Your task to perform on an android device: allow cookies in the chrome app Image 0: 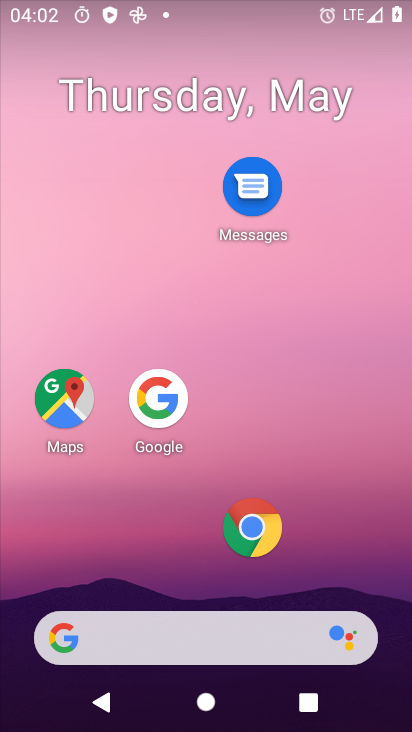
Step 0: drag from (194, 566) to (230, 119)
Your task to perform on an android device: allow cookies in the chrome app Image 1: 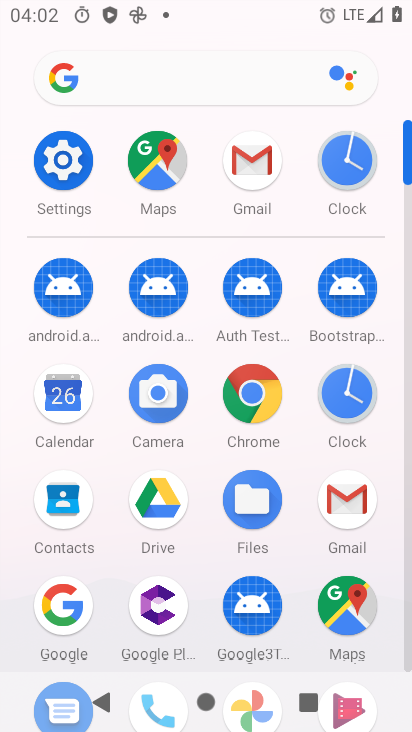
Step 1: click (251, 395)
Your task to perform on an android device: allow cookies in the chrome app Image 2: 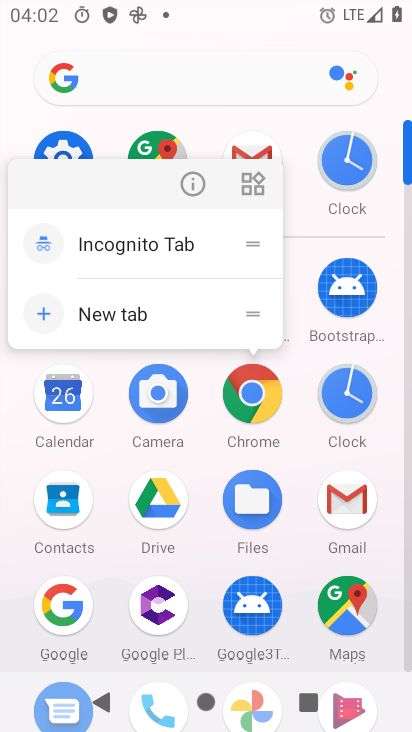
Step 2: click (183, 190)
Your task to perform on an android device: allow cookies in the chrome app Image 3: 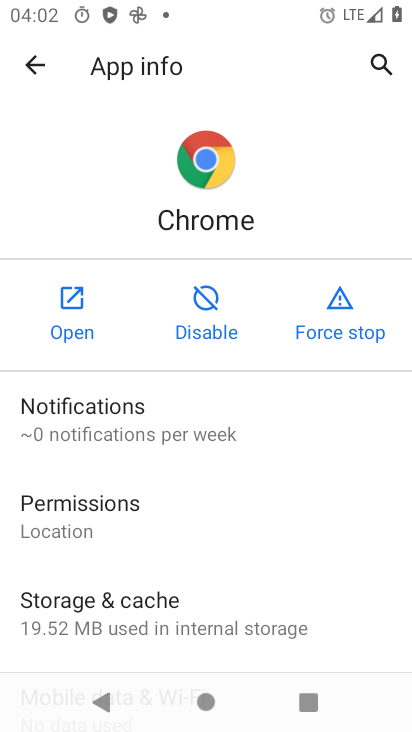
Step 3: click (85, 326)
Your task to perform on an android device: allow cookies in the chrome app Image 4: 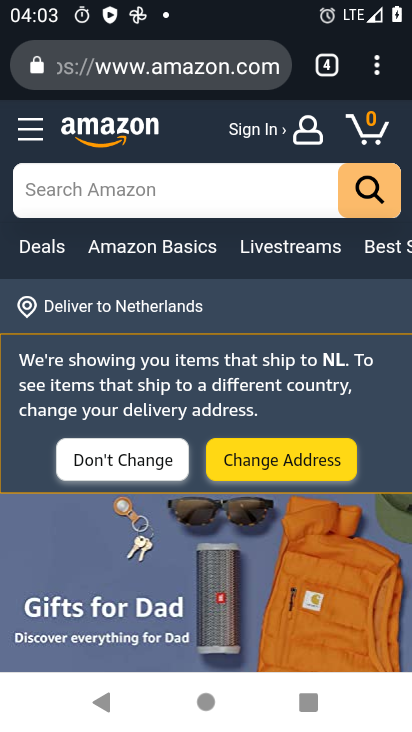
Step 4: drag from (227, 487) to (275, 166)
Your task to perform on an android device: allow cookies in the chrome app Image 5: 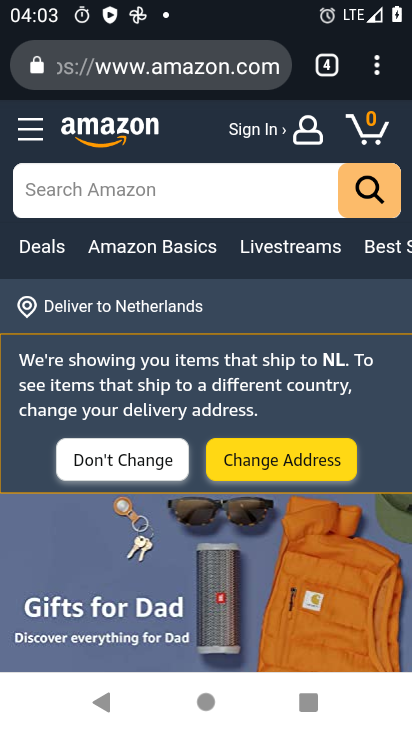
Step 5: drag from (55, 637) to (232, 174)
Your task to perform on an android device: allow cookies in the chrome app Image 6: 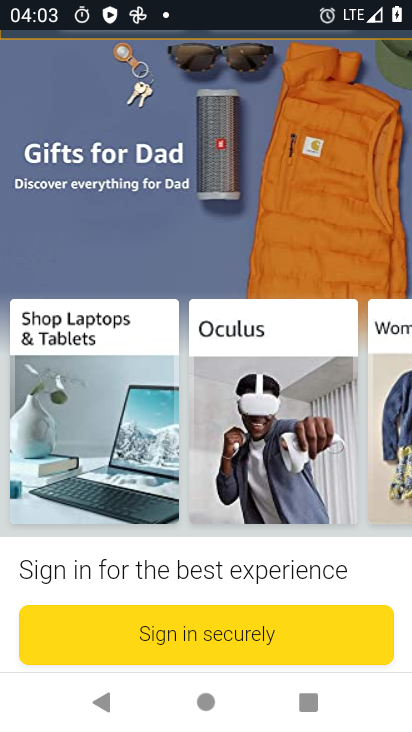
Step 6: drag from (245, 144) to (300, 611)
Your task to perform on an android device: allow cookies in the chrome app Image 7: 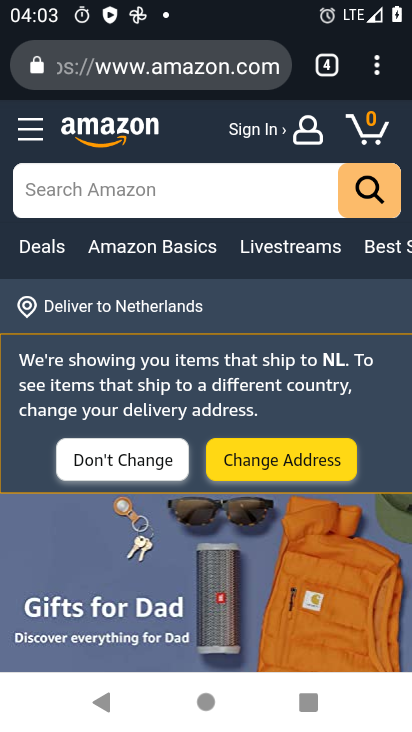
Step 7: click (382, 55)
Your task to perform on an android device: allow cookies in the chrome app Image 8: 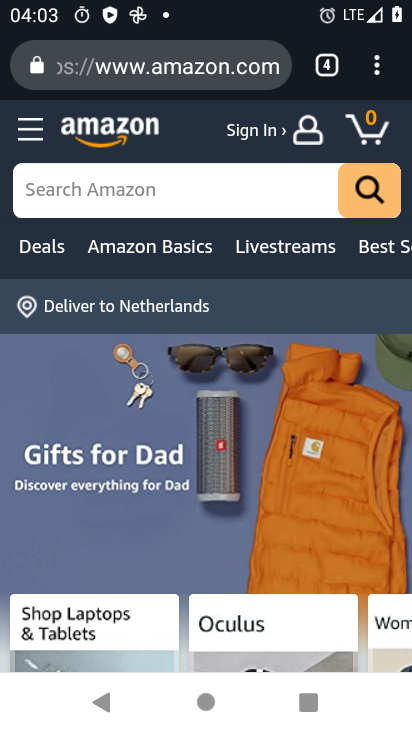
Step 8: click (383, 56)
Your task to perform on an android device: allow cookies in the chrome app Image 9: 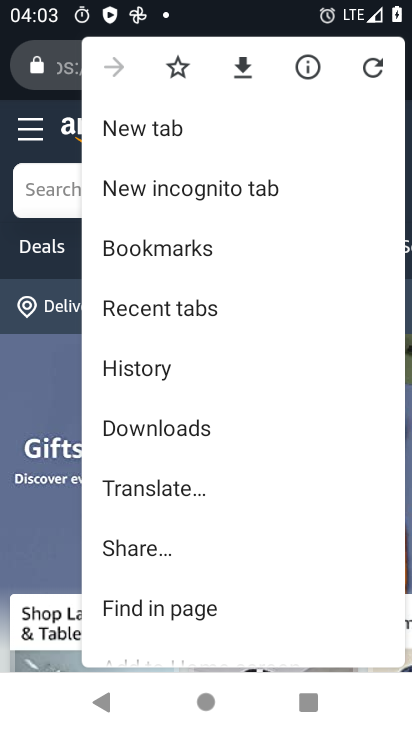
Step 9: drag from (209, 557) to (214, 0)
Your task to perform on an android device: allow cookies in the chrome app Image 10: 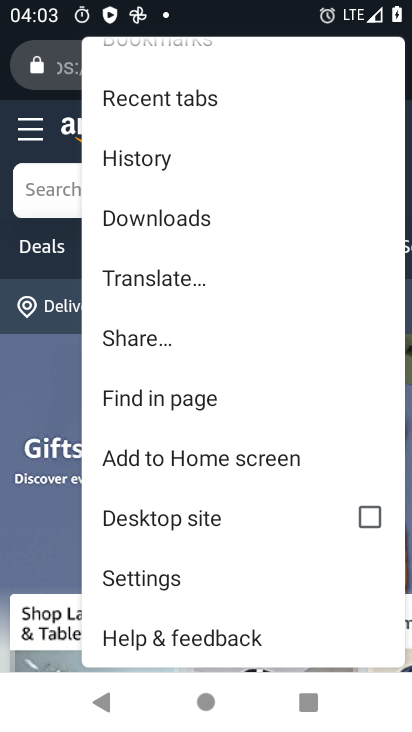
Step 10: click (162, 576)
Your task to perform on an android device: allow cookies in the chrome app Image 11: 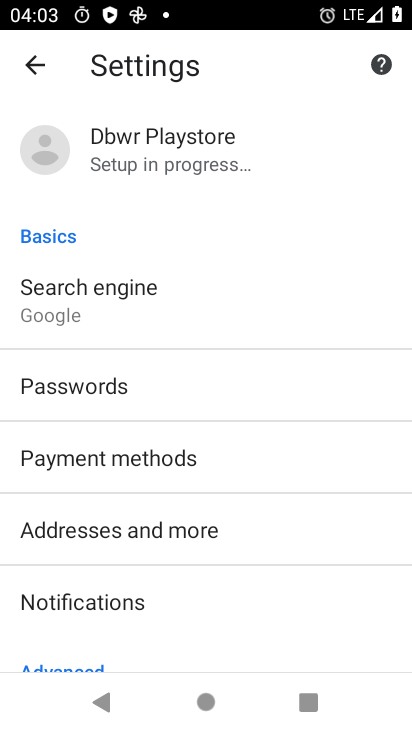
Step 11: drag from (154, 641) to (301, 30)
Your task to perform on an android device: allow cookies in the chrome app Image 12: 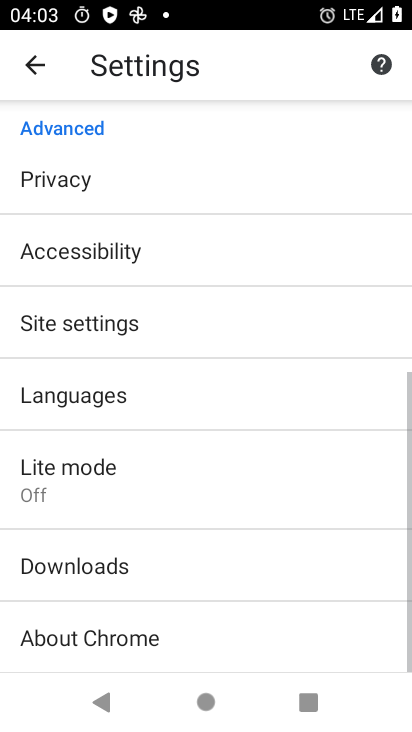
Step 12: click (106, 327)
Your task to perform on an android device: allow cookies in the chrome app Image 13: 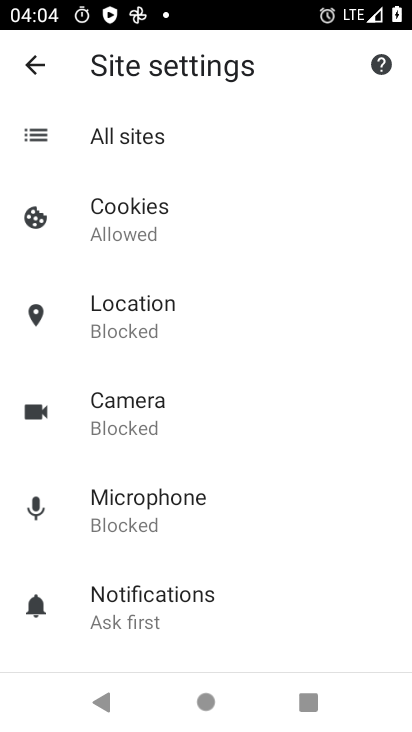
Step 13: click (177, 228)
Your task to perform on an android device: allow cookies in the chrome app Image 14: 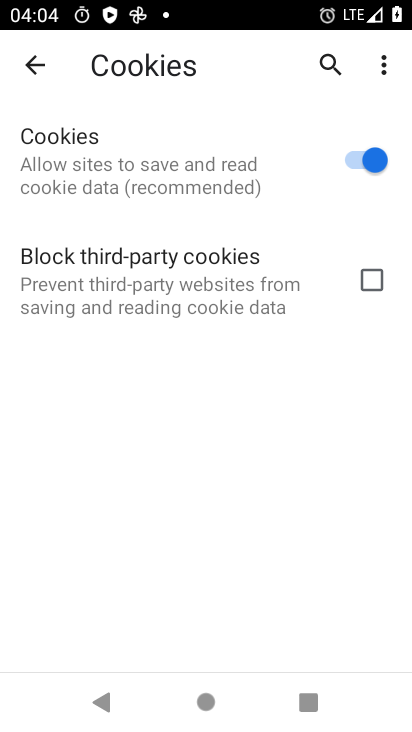
Step 14: task complete